Your task to perform on an android device: Open eBay Image 0: 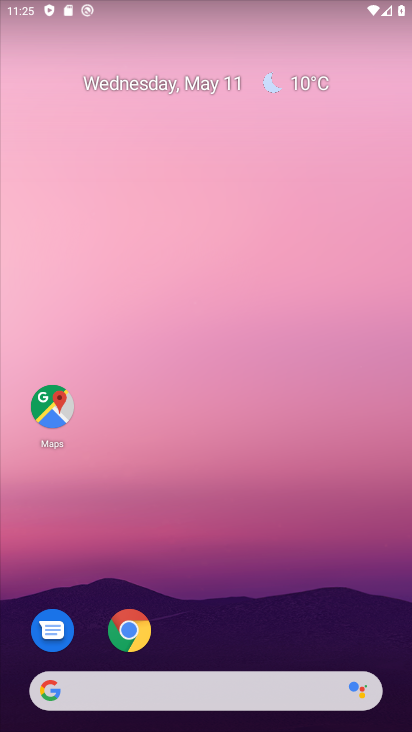
Step 0: click (127, 627)
Your task to perform on an android device: Open eBay Image 1: 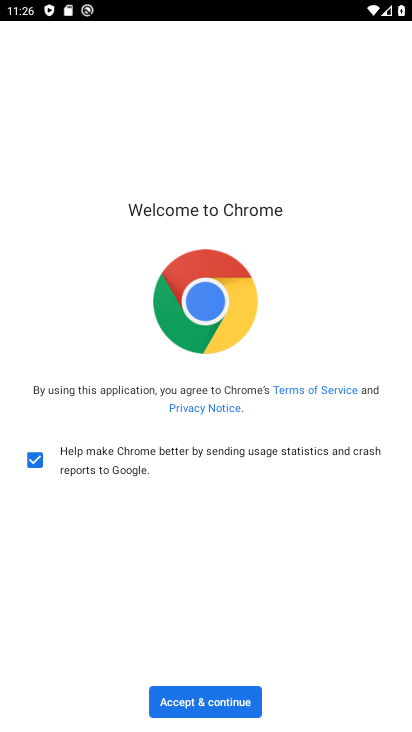
Step 1: click (193, 696)
Your task to perform on an android device: Open eBay Image 2: 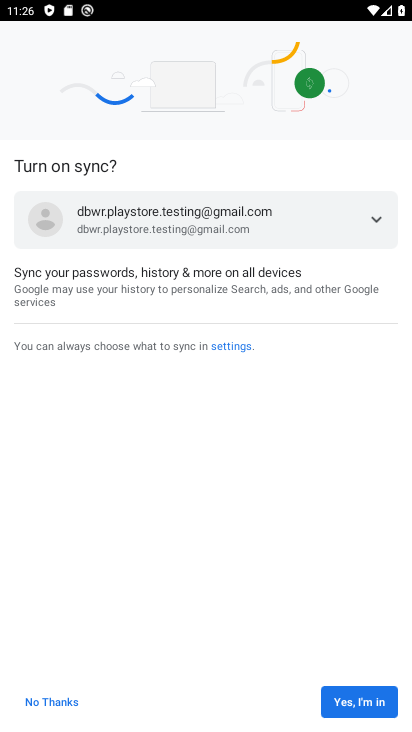
Step 2: click (353, 707)
Your task to perform on an android device: Open eBay Image 3: 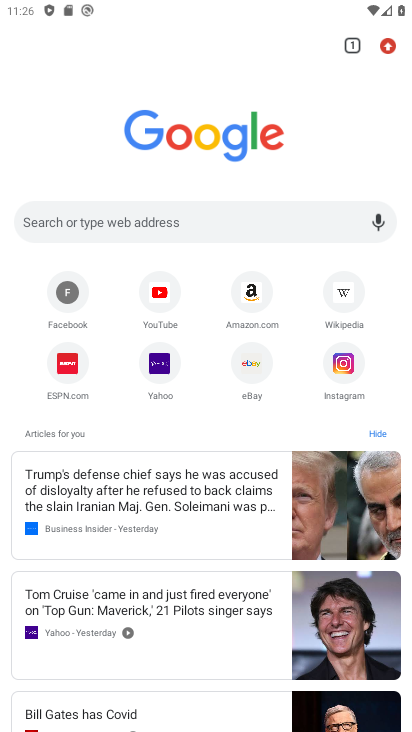
Step 3: click (250, 361)
Your task to perform on an android device: Open eBay Image 4: 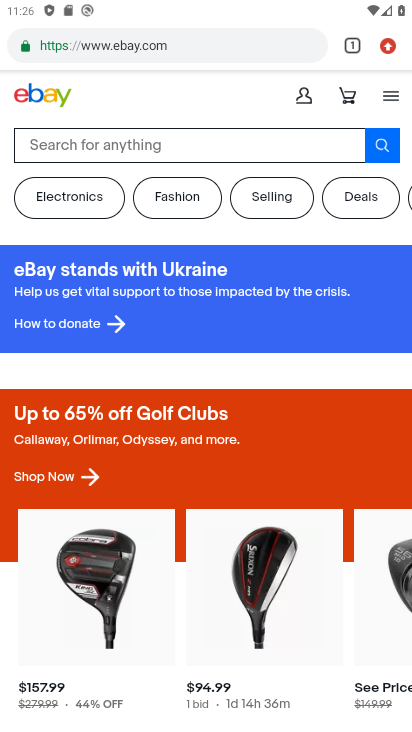
Step 4: task complete